Your task to perform on an android device: Search for "macbook pro 15 inch" on bestbuy, select the first entry, and add it to the cart. Image 0: 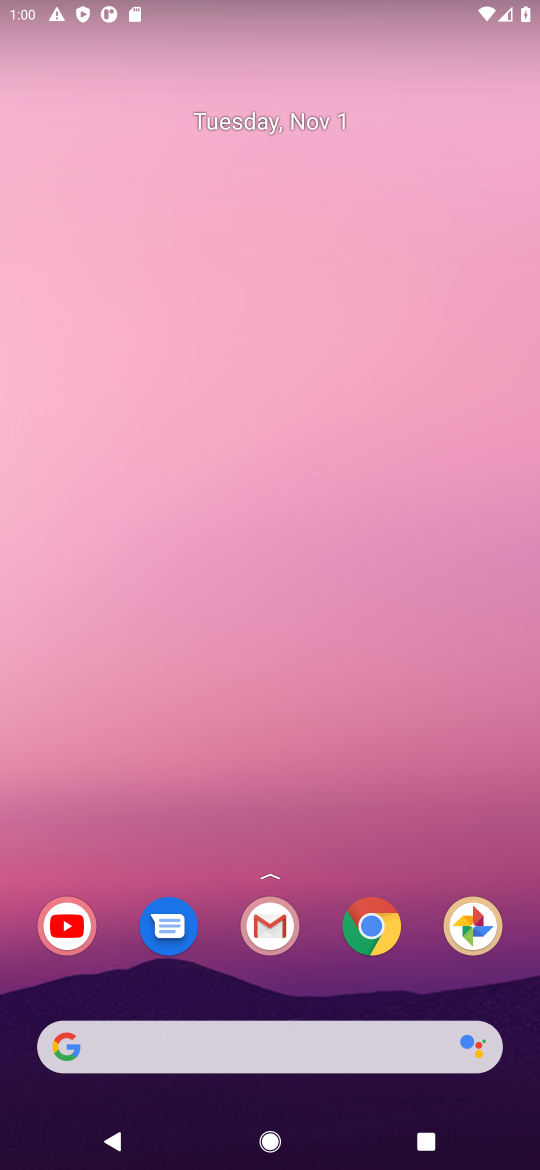
Step 0: click (377, 935)
Your task to perform on an android device: Search for "macbook pro 15 inch" on bestbuy, select the first entry, and add it to the cart. Image 1: 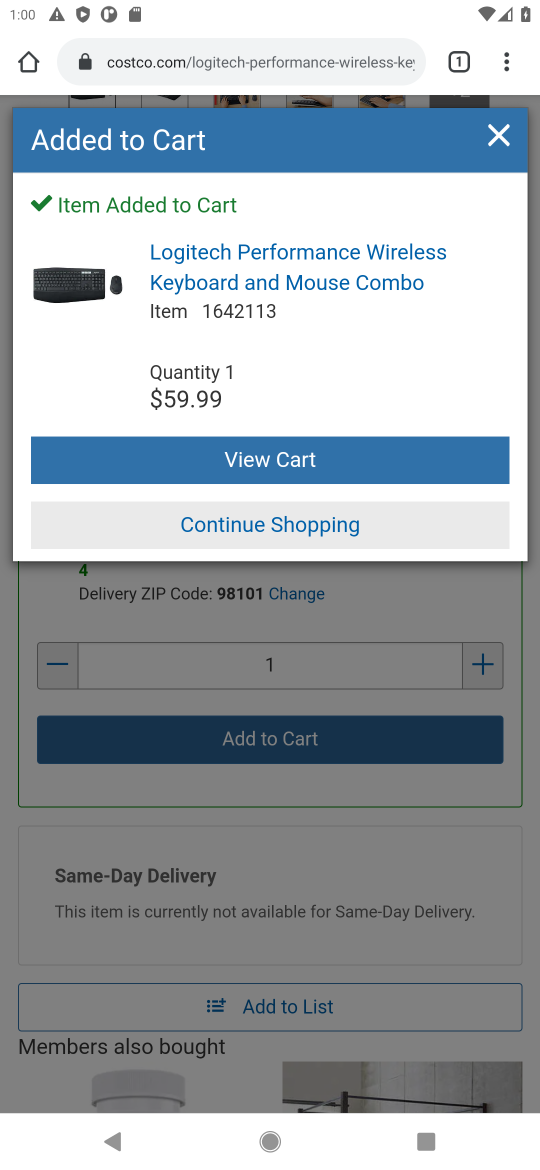
Step 1: click (296, 52)
Your task to perform on an android device: Search for "macbook pro 15 inch" on bestbuy, select the first entry, and add it to the cart. Image 2: 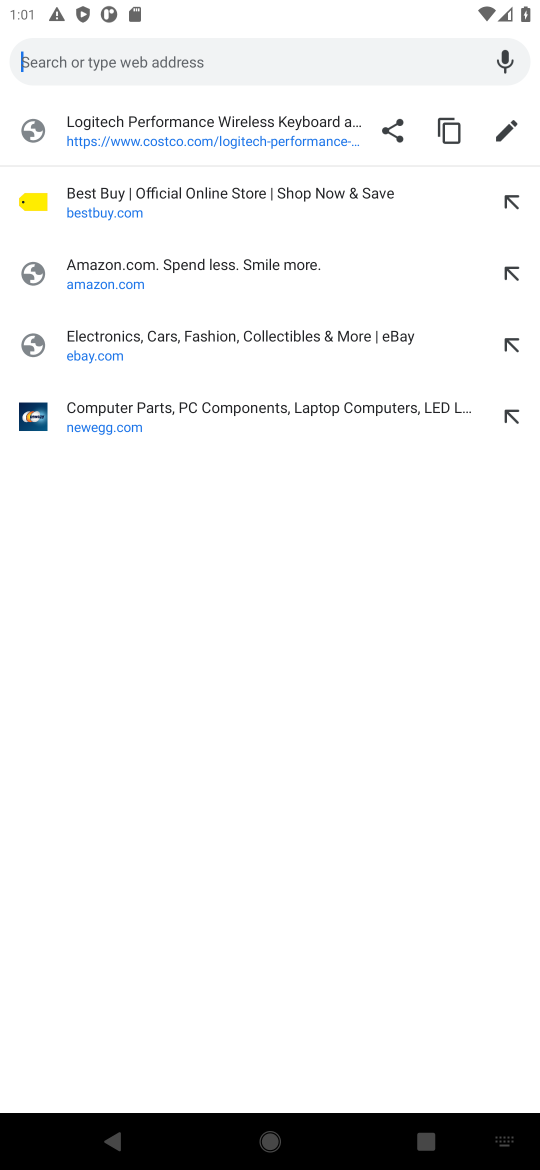
Step 2: type "bestbuy"
Your task to perform on an android device: Search for "macbook pro 15 inch" on bestbuy, select the first entry, and add it to the cart. Image 3: 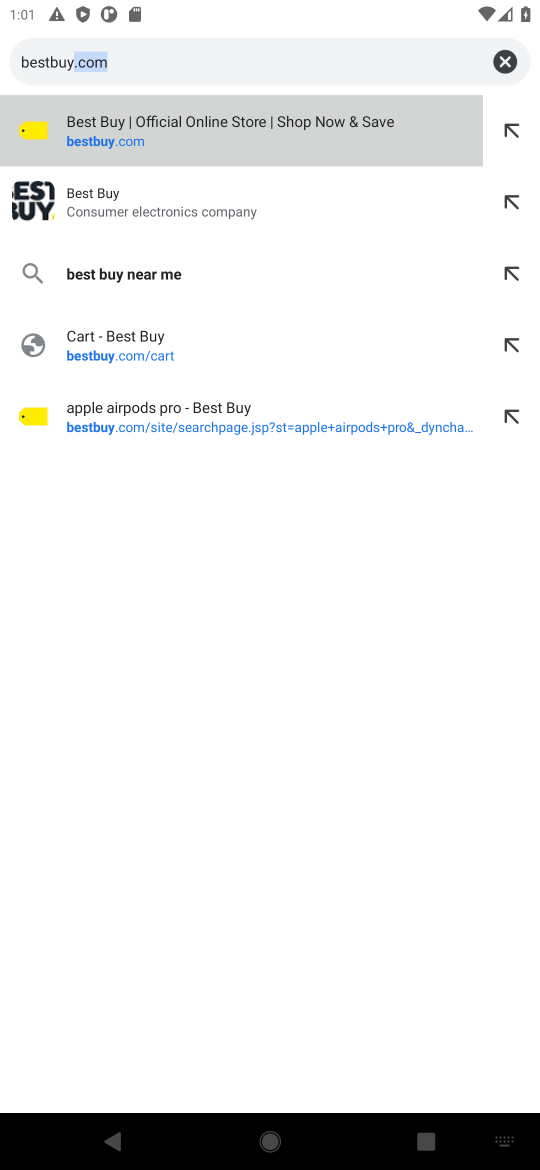
Step 3: click (255, 130)
Your task to perform on an android device: Search for "macbook pro 15 inch" on bestbuy, select the first entry, and add it to the cart. Image 4: 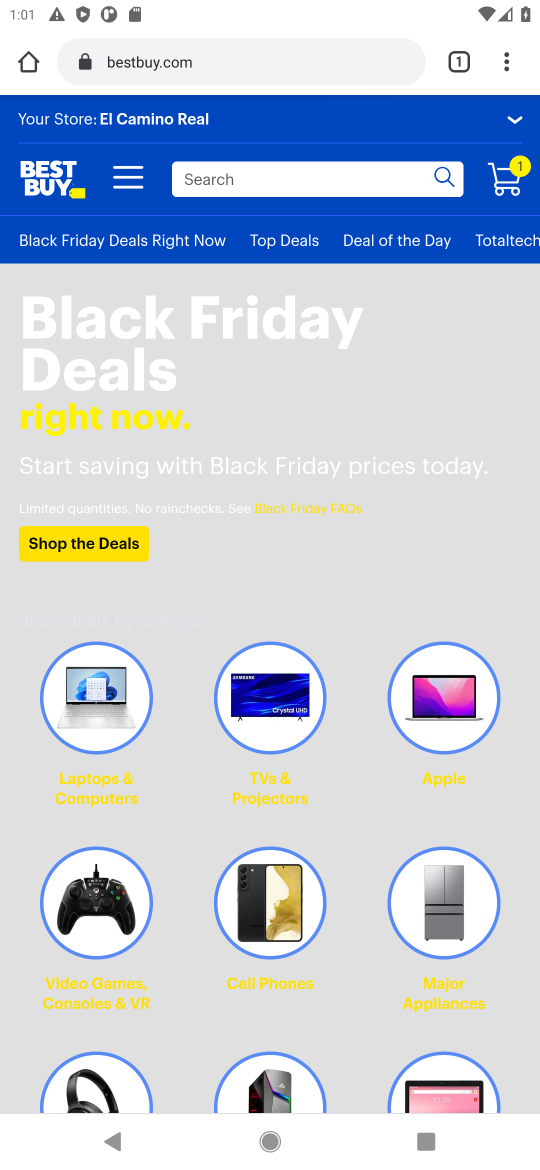
Step 4: click (311, 182)
Your task to perform on an android device: Search for "macbook pro 15 inch" on bestbuy, select the first entry, and add it to the cart. Image 5: 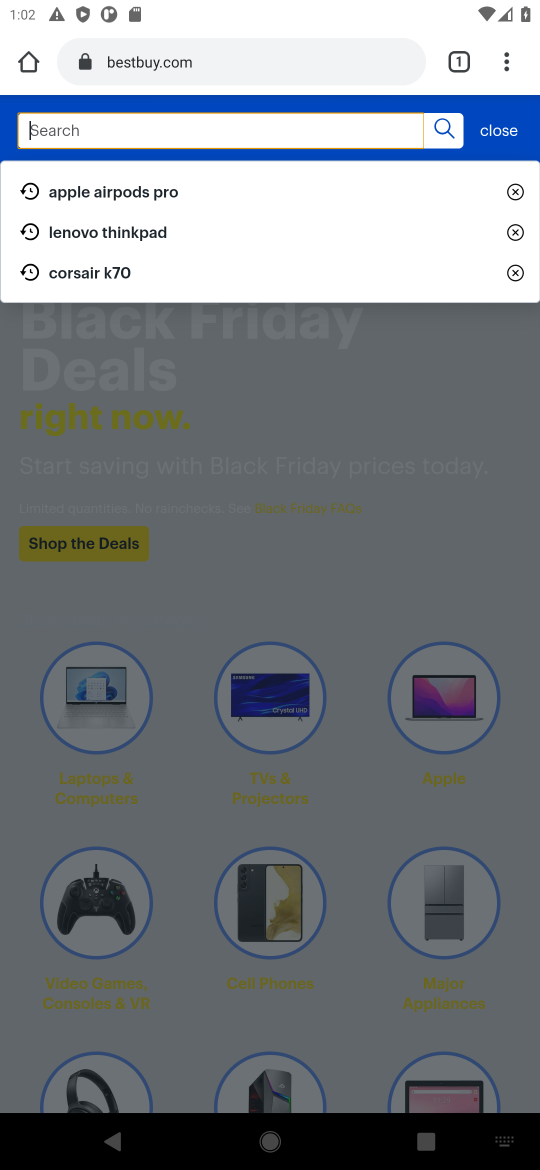
Step 5: type "macbook pro 15 inch"
Your task to perform on an android device: Search for "macbook pro 15 inch" on bestbuy, select the first entry, and add it to the cart. Image 6: 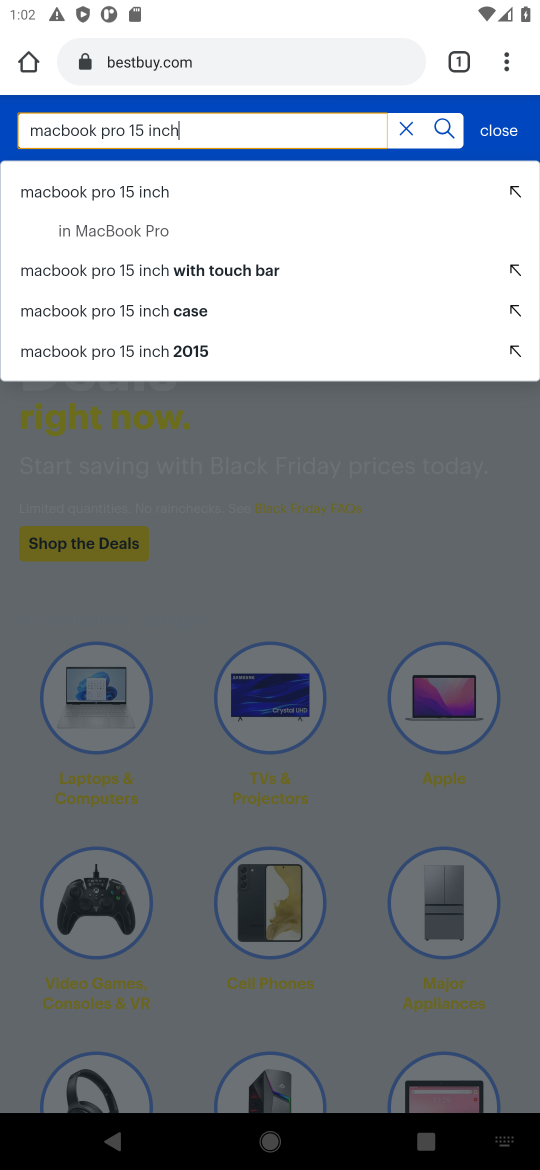
Step 6: click (103, 195)
Your task to perform on an android device: Search for "macbook pro 15 inch" on bestbuy, select the first entry, and add it to the cart. Image 7: 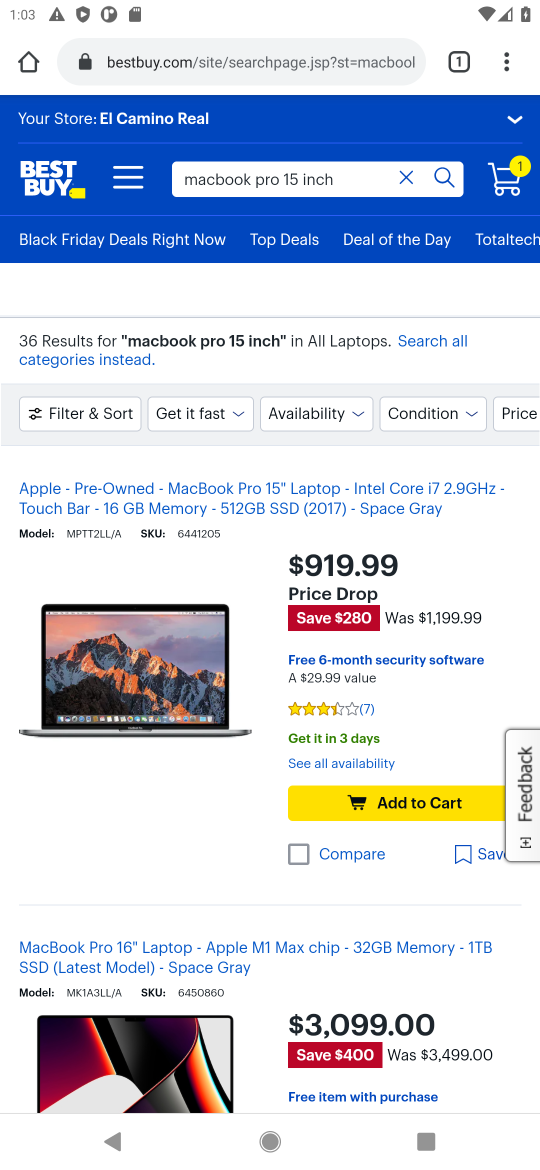
Step 7: drag from (246, 840) to (202, 771)
Your task to perform on an android device: Search for "macbook pro 15 inch" on bestbuy, select the first entry, and add it to the cart. Image 8: 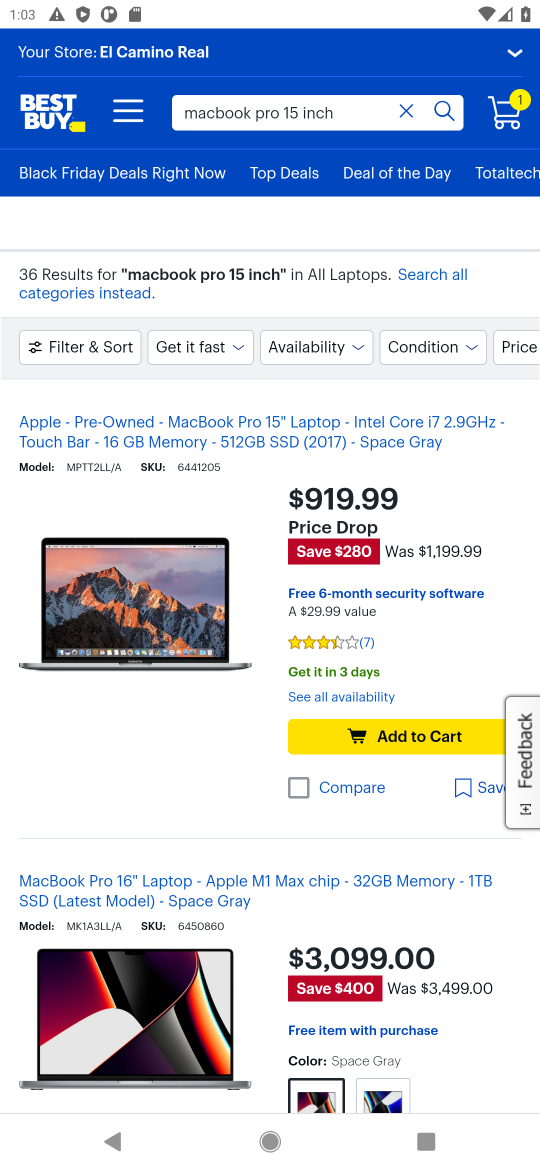
Step 8: click (192, 603)
Your task to perform on an android device: Search for "macbook pro 15 inch" on bestbuy, select the first entry, and add it to the cart. Image 9: 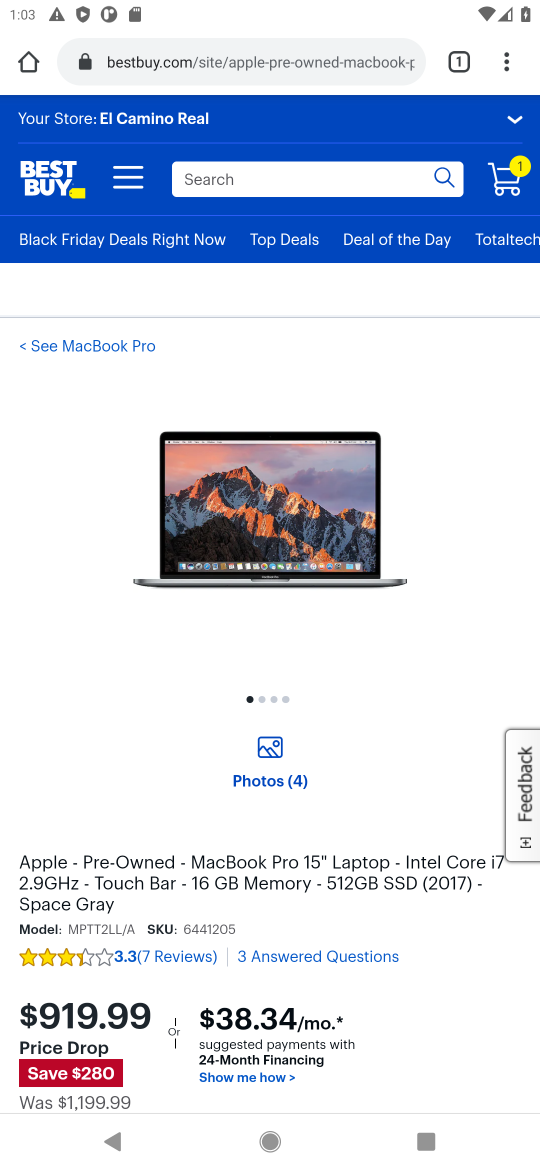
Step 9: drag from (394, 1012) to (303, 518)
Your task to perform on an android device: Search for "macbook pro 15 inch" on bestbuy, select the first entry, and add it to the cart. Image 10: 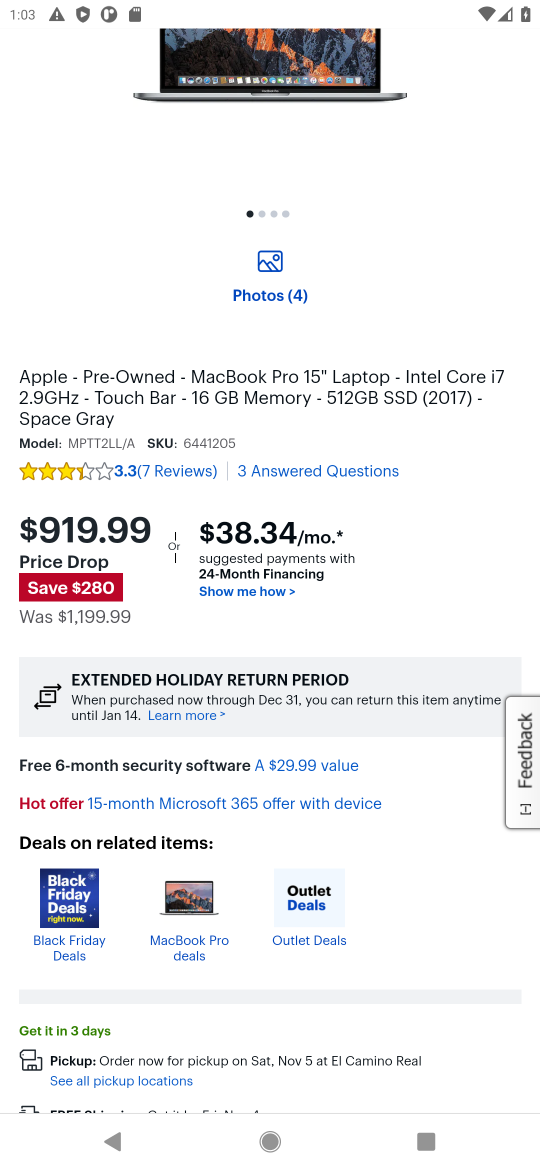
Step 10: drag from (382, 745) to (357, 556)
Your task to perform on an android device: Search for "macbook pro 15 inch" on bestbuy, select the first entry, and add it to the cart. Image 11: 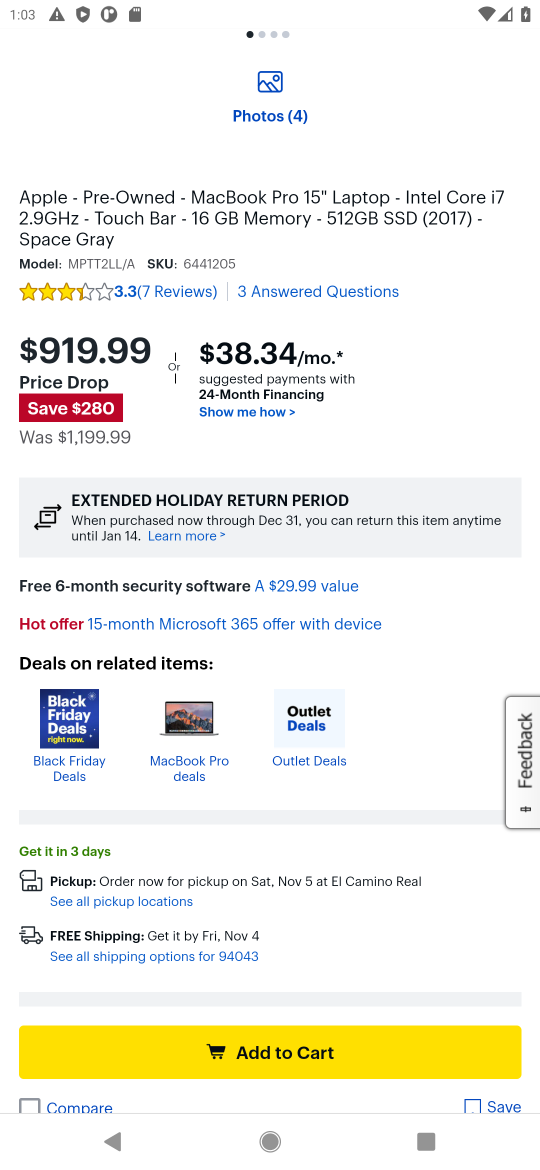
Step 11: click (262, 1053)
Your task to perform on an android device: Search for "macbook pro 15 inch" on bestbuy, select the first entry, and add it to the cart. Image 12: 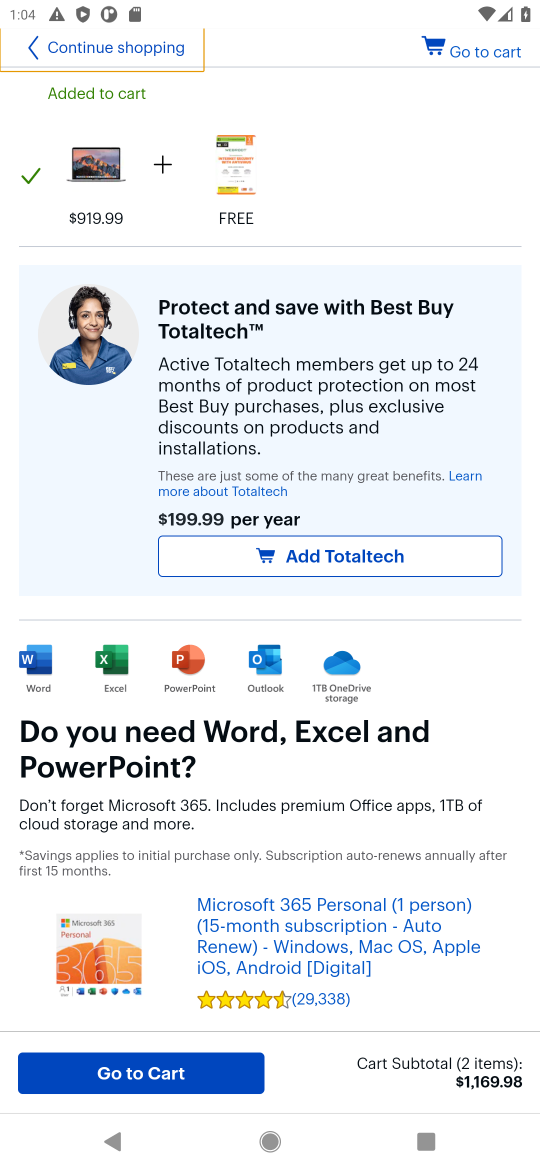
Step 12: task complete